Your task to perform on an android device: Search for "amazon basics triple a" on newegg.com, select the first entry, add it to the cart, then select checkout. Image 0: 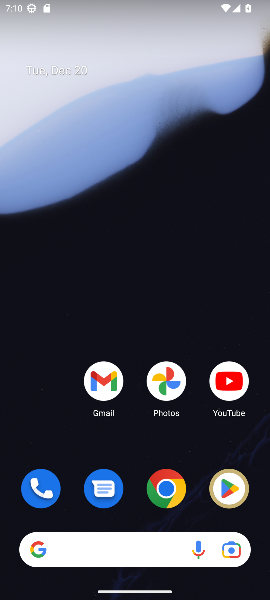
Step 0: press home button
Your task to perform on an android device: Search for "amazon basics triple a" on newegg.com, select the first entry, add it to the cart, then select checkout. Image 1: 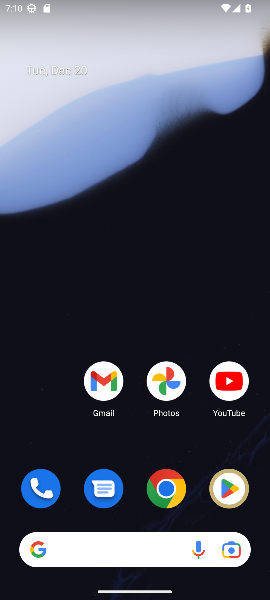
Step 1: drag from (56, 394) to (9, 0)
Your task to perform on an android device: Search for "amazon basics triple a" on newegg.com, select the first entry, add it to the cart, then select checkout. Image 2: 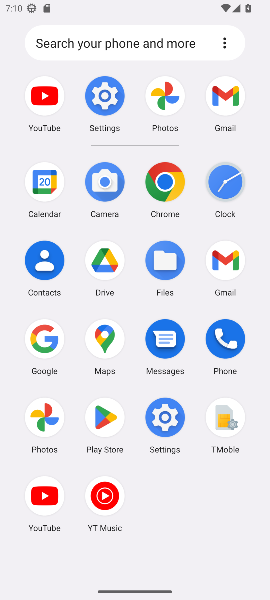
Step 2: click (37, 333)
Your task to perform on an android device: Search for "amazon basics triple a" on newegg.com, select the first entry, add it to the cart, then select checkout. Image 3: 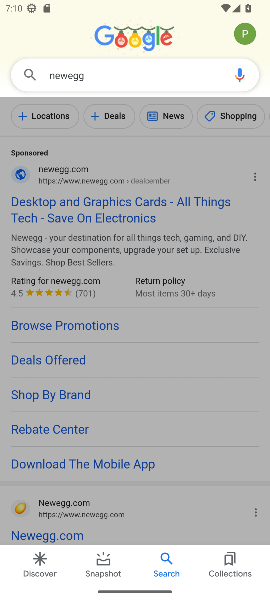
Step 3: click (110, 72)
Your task to perform on an android device: Search for "amazon basics triple a" on newegg.com, select the first entry, add it to the cart, then select checkout. Image 4: 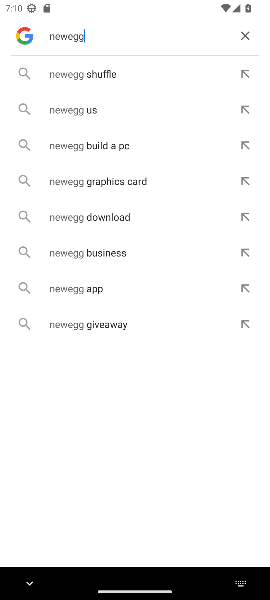
Step 4: click (245, 34)
Your task to perform on an android device: Search for "amazon basics triple a" on newegg.com, select the first entry, add it to the cart, then select checkout. Image 5: 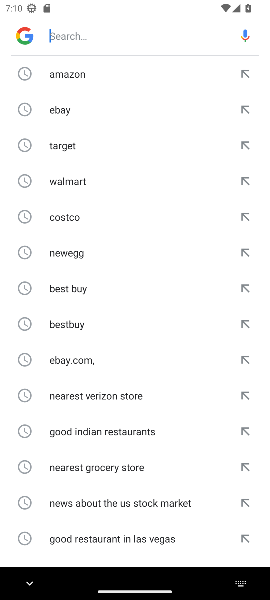
Step 5: type "newegg.com"
Your task to perform on an android device: Search for "amazon basics triple a" on newegg.com, select the first entry, add it to the cart, then select checkout. Image 6: 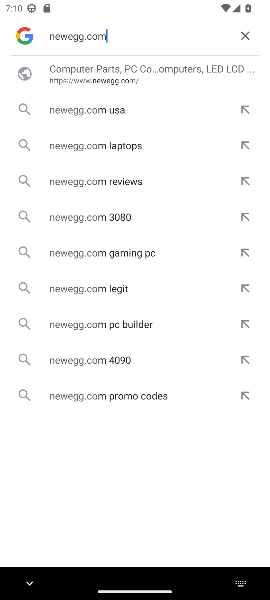
Step 6: press enter
Your task to perform on an android device: Search for "amazon basics triple a" on newegg.com, select the first entry, add it to the cart, then select checkout. Image 7: 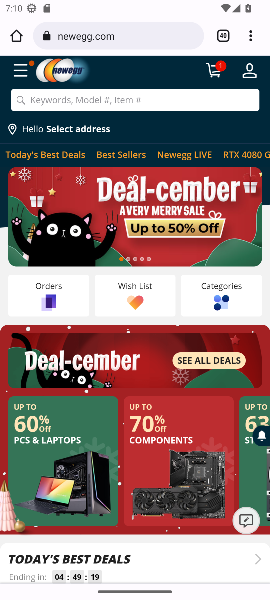
Step 7: click (111, 100)
Your task to perform on an android device: Search for "amazon basics triple a" on newegg.com, select the first entry, add it to the cart, then select checkout. Image 8: 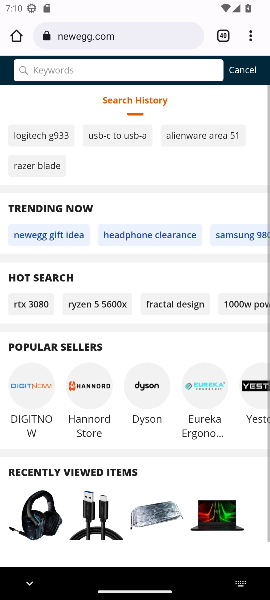
Step 8: type "amazon basics triple a"
Your task to perform on an android device: Search for "amazon basics triple a" on newegg.com, select the first entry, add it to the cart, then select checkout. Image 9: 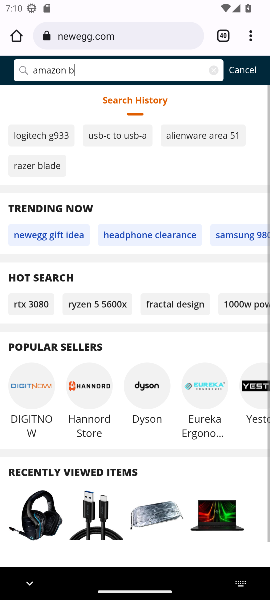
Step 9: press enter
Your task to perform on an android device: Search for "amazon basics triple a" on newegg.com, select the first entry, add it to the cart, then select checkout. Image 10: 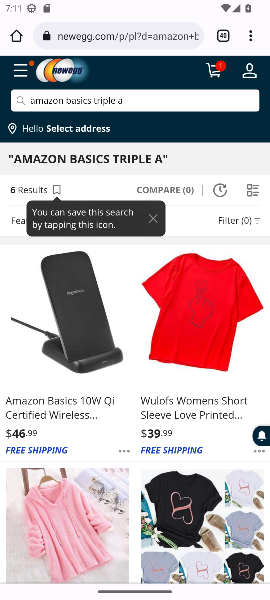
Step 10: task complete